Your task to perform on an android device: set the stopwatch Image 0: 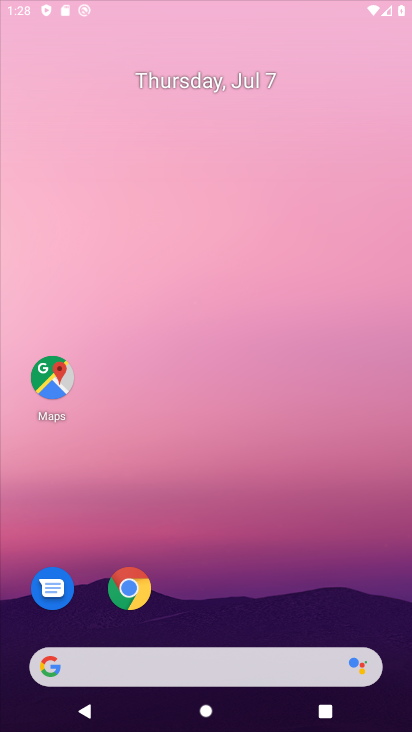
Step 0: drag from (175, 603) to (291, 176)
Your task to perform on an android device: set the stopwatch Image 1: 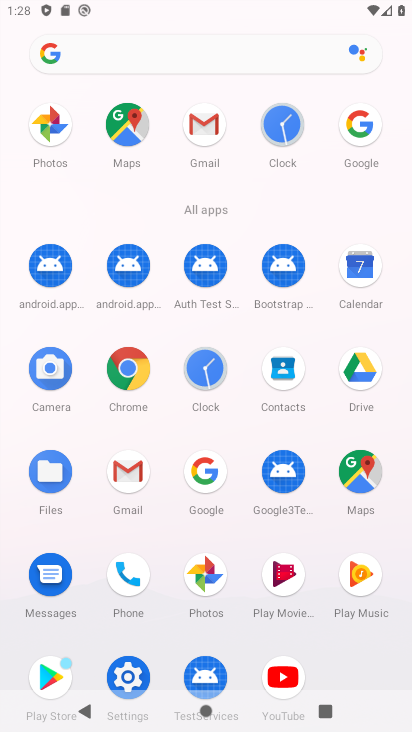
Step 1: click (193, 372)
Your task to perform on an android device: set the stopwatch Image 2: 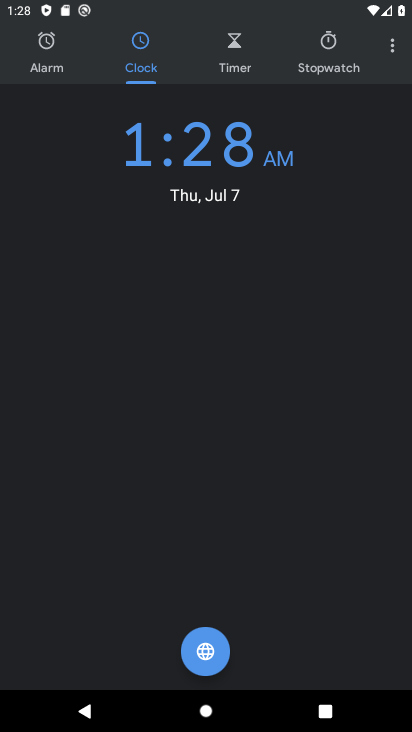
Step 2: click (333, 60)
Your task to perform on an android device: set the stopwatch Image 3: 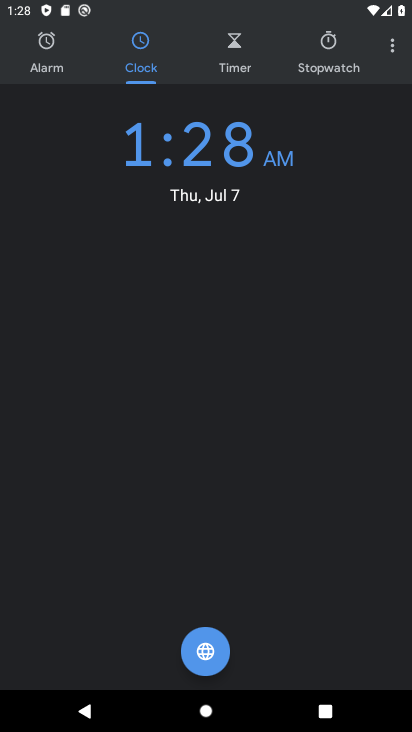
Step 3: click (324, 56)
Your task to perform on an android device: set the stopwatch Image 4: 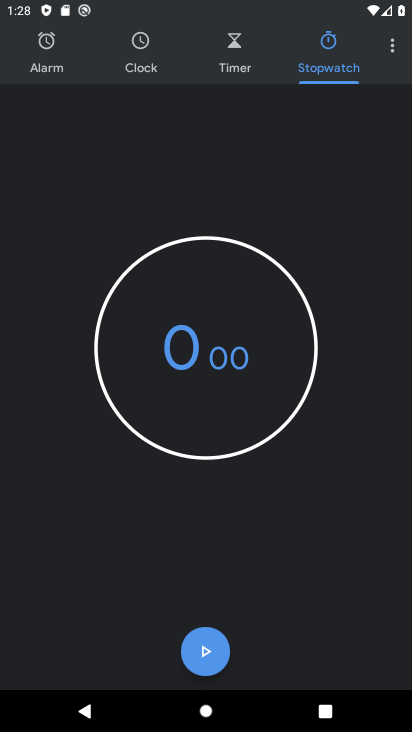
Step 4: click (206, 654)
Your task to perform on an android device: set the stopwatch Image 5: 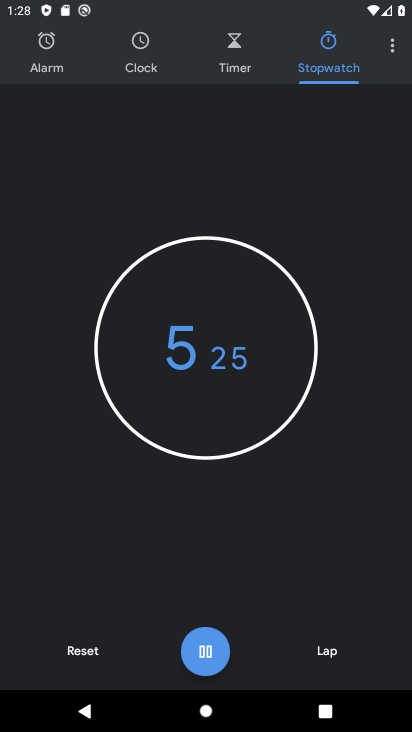
Step 5: click (206, 654)
Your task to perform on an android device: set the stopwatch Image 6: 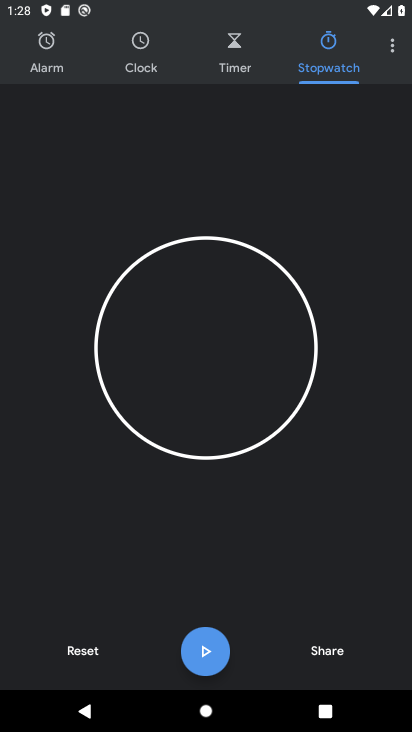
Step 6: task complete